Your task to perform on an android device: change the upload size in google photos Image 0: 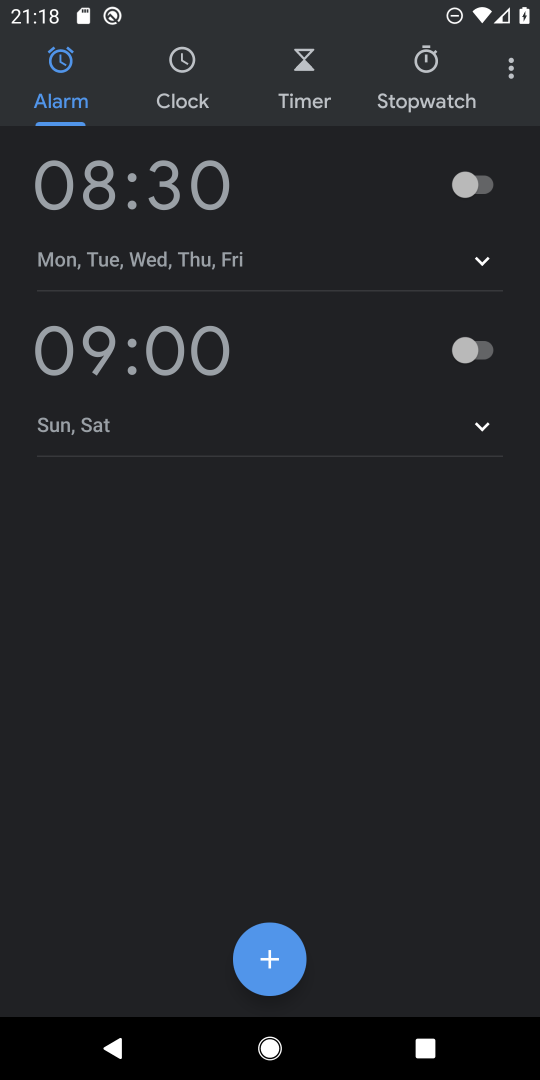
Step 0: press home button
Your task to perform on an android device: change the upload size in google photos Image 1: 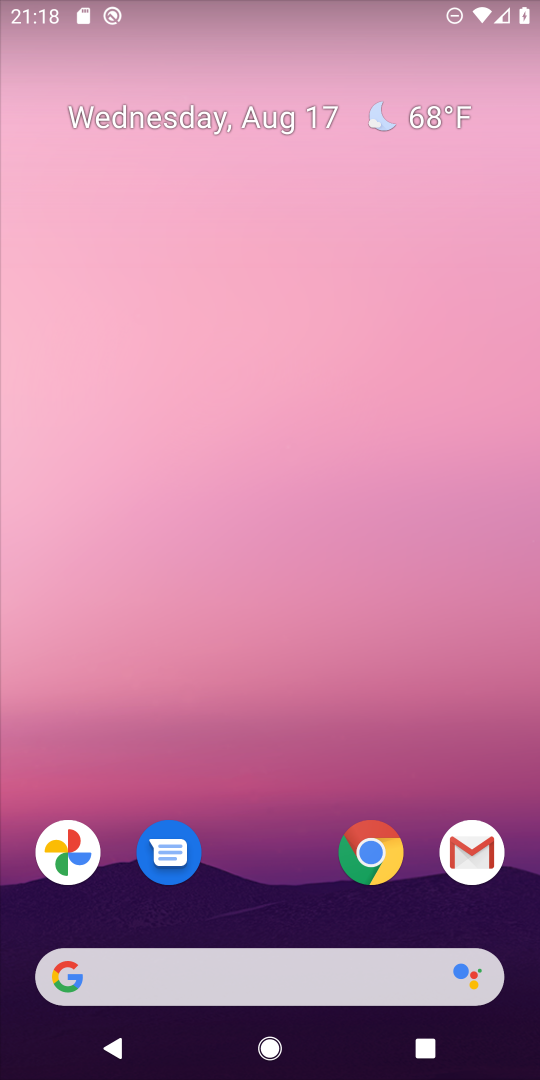
Step 1: click (66, 853)
Your task to perform on an android device: change the upload size in google photos Image 2: 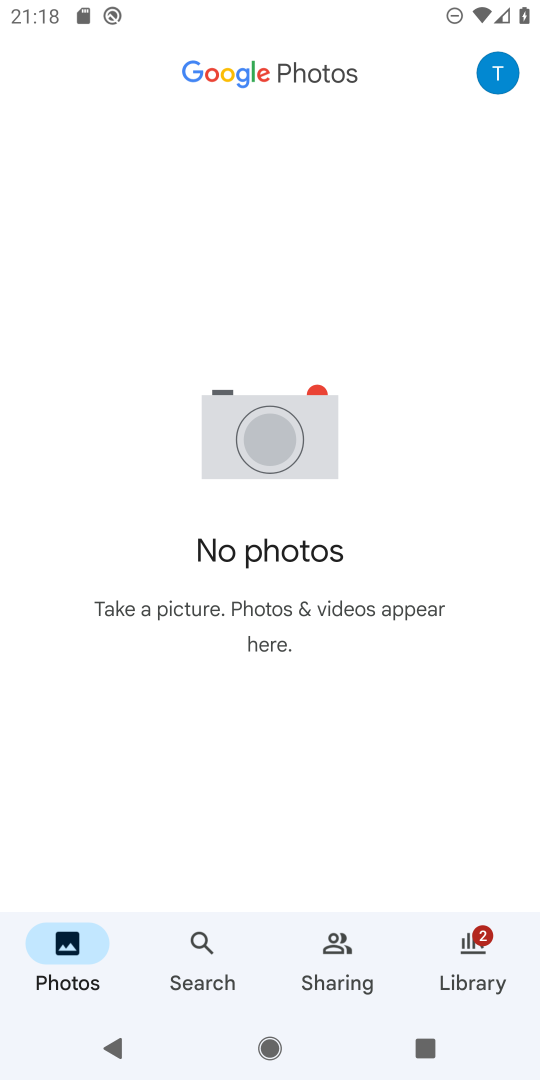
Step 2: click (492, 76)
Your task to perform on an android device: change the upload size in google photos Image 3: 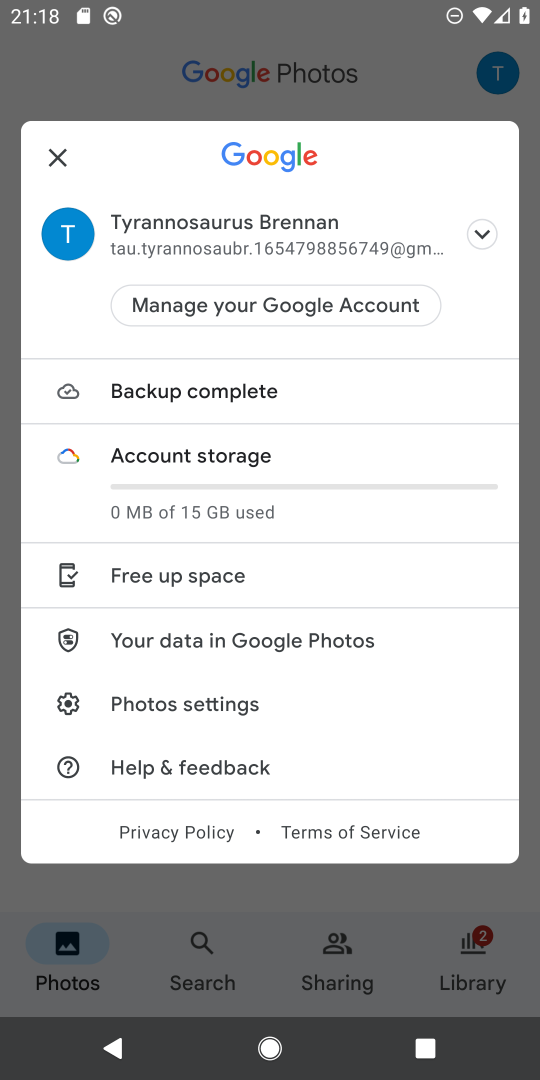
Step 3: click (167, 698)
Your task to perform on an android device: change the upload size in google photos Image 4: 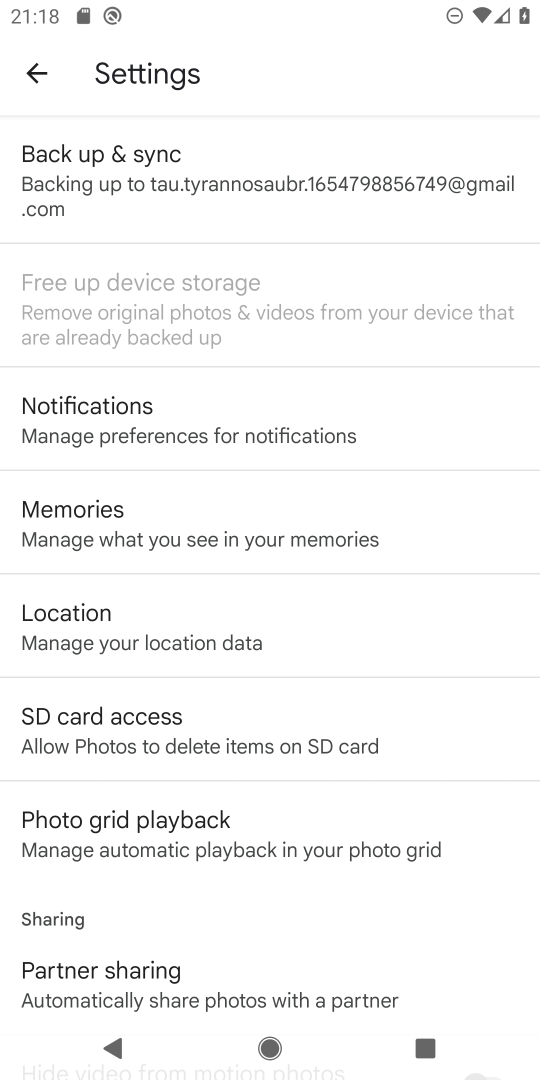
Step 4: click (85, 150)
Your task to perform on an android device: change the upload size in google photos Image 5: 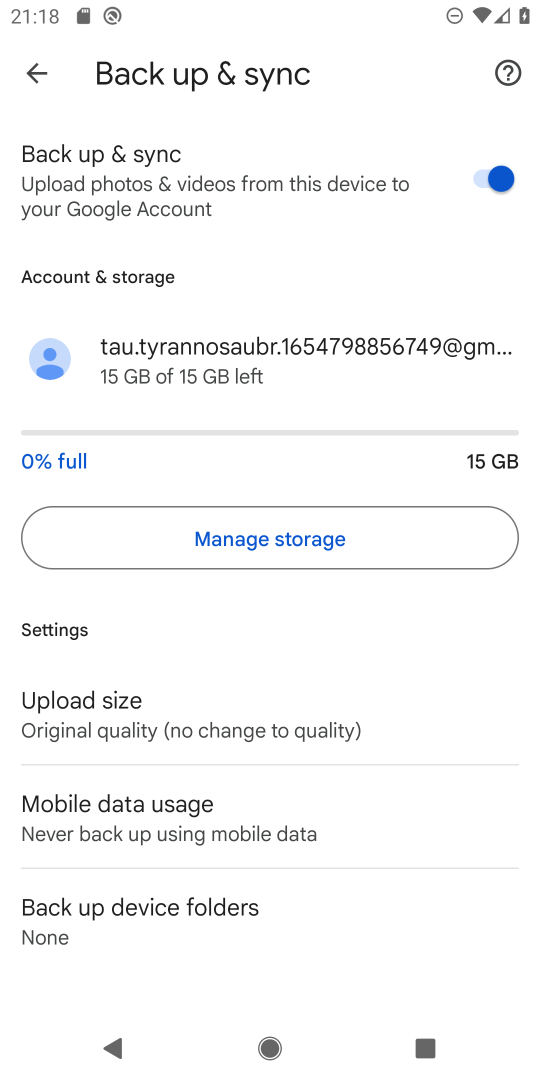
Step 5: click (108, 699)
Your task to perform on an android device: change the upload size in google photos Image 6: 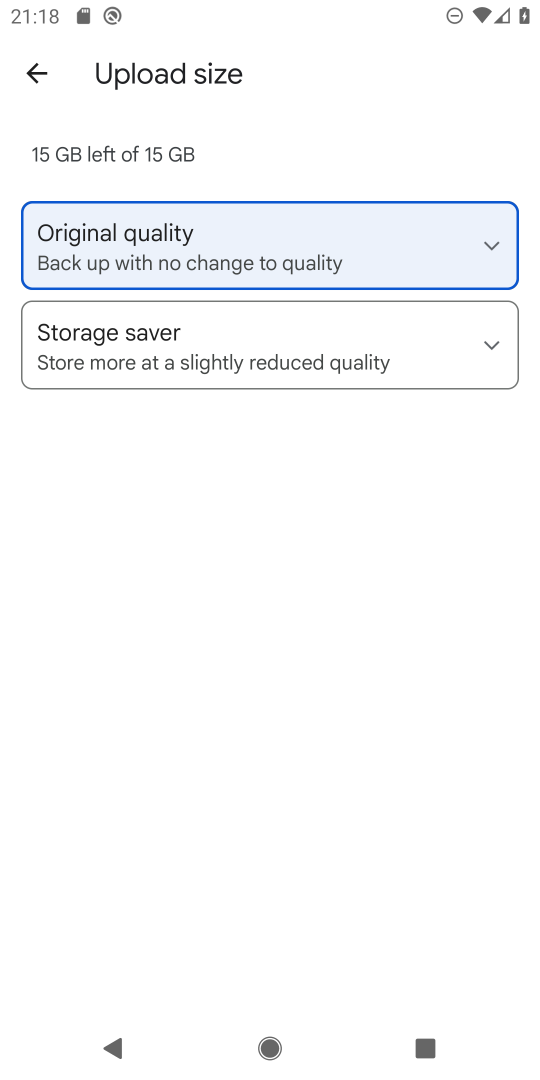
Step 6: task complete